Your task to perform on an android device: Open Google Maps Image 0: 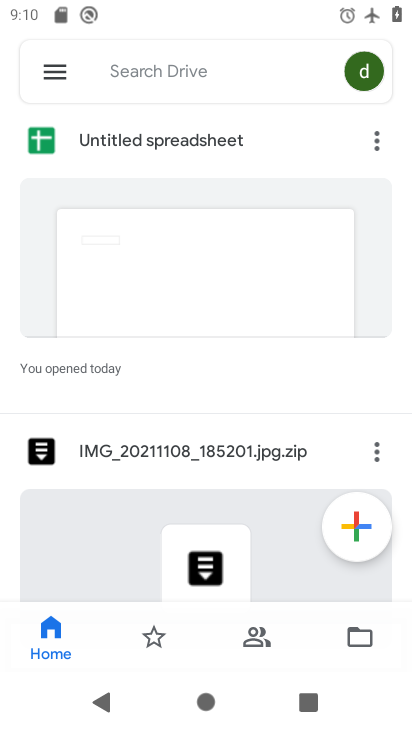
Step 0: press home button
Your task to perform on an android device: Open Google Maps Image 1: 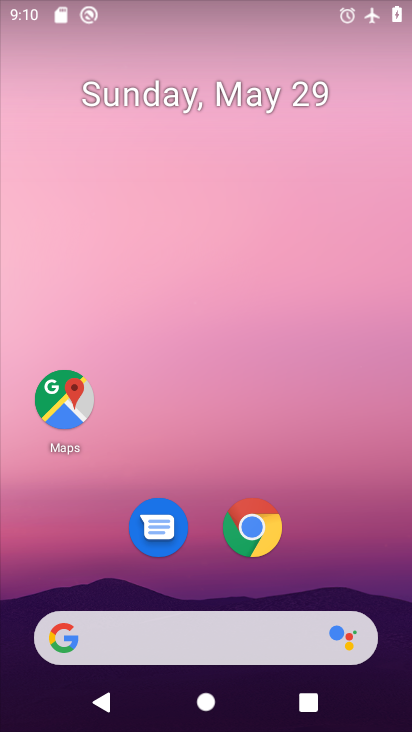
Step 1: click (62, 395)
Your task to perform on an android device: Open Google Maps Image 2: 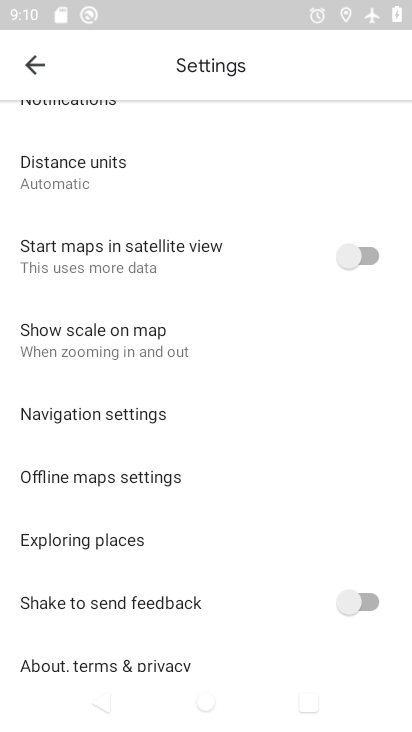
Step 2: drag from (191, 556) to (188, 212)
Your task to perform on an android device: Open Google Maps Image 3: 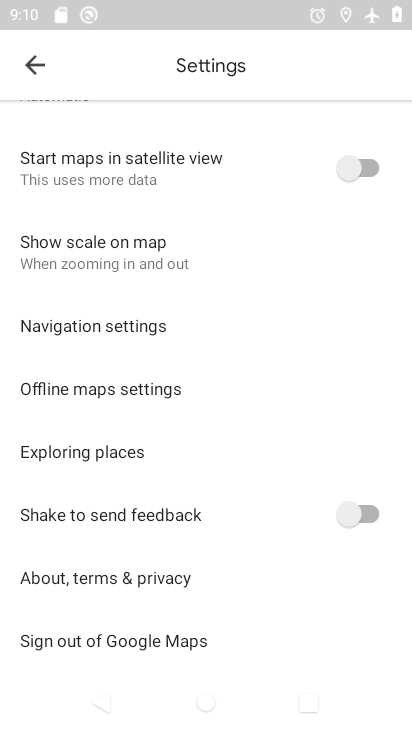
Step 3: click (29, 45)
Your task to perform on an android device: Open Google Maps Image 4: 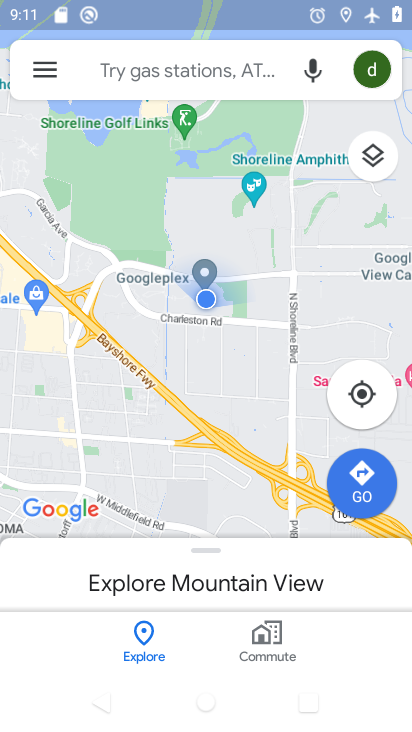
Step 4: task complete